Your task to perform on an android device: check out phone information Image 0: 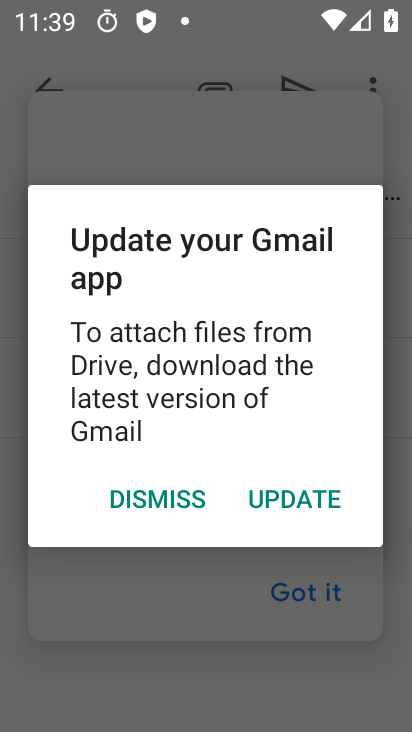
Step 0: press home button
Your task to perform on an android device: check out phone information Image 1: 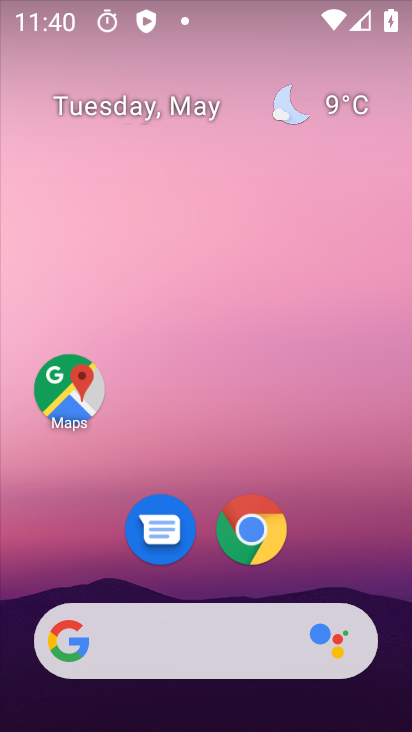
Step 1: drag from (98, 597) to (262, 43)
Your task to perform on an android device: check out phone information Image 2: 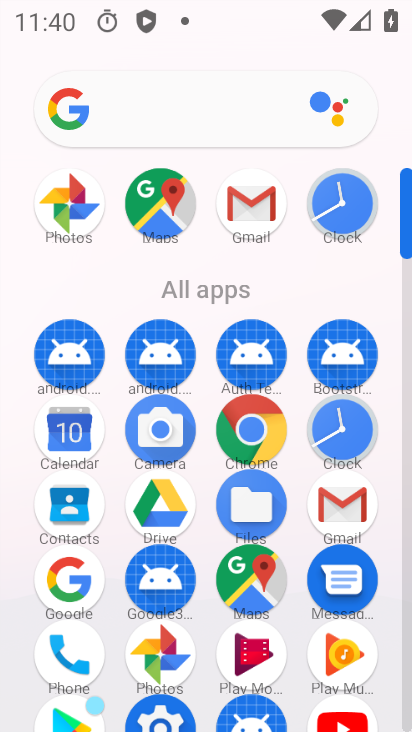
Step 2: drag from (136, 574) to (210, 313)
Your task to perform on an android device: check out phone information Image 3: 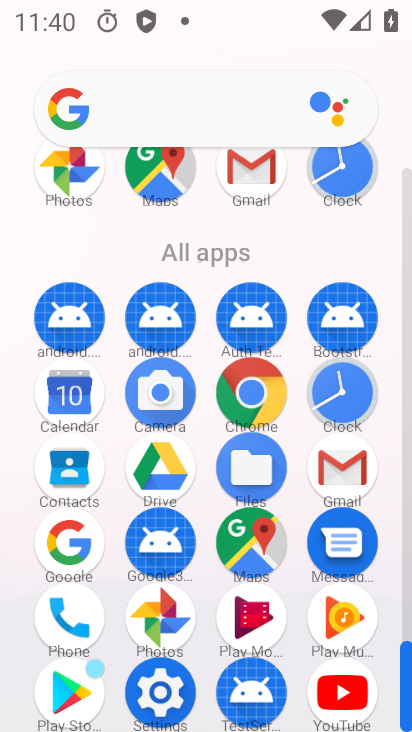
Step 3: click (167, 699)
Your task to perform on an android device: check out phone information Image 4: 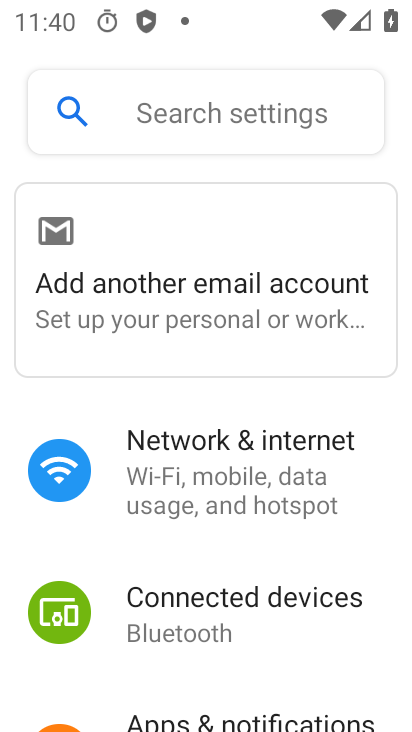
Step 4: drag from (171, 692) to (321, 195)
Your task to perform on an android device: check out phone information Image 5: 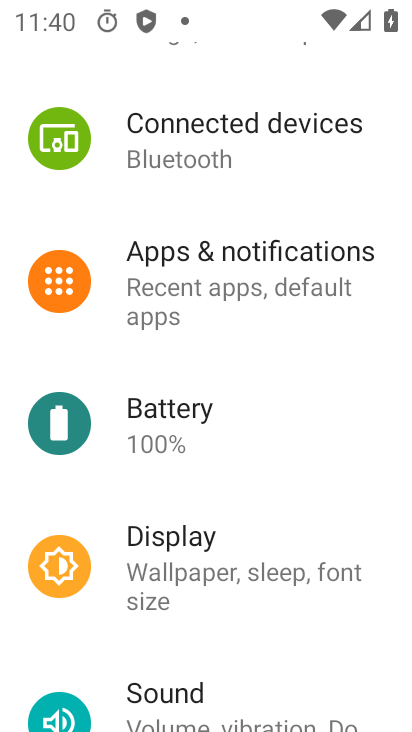
Step 5: drag from (199, 667) to (353, 177)
Your task to perform on an android device: check out phone information Image 6: 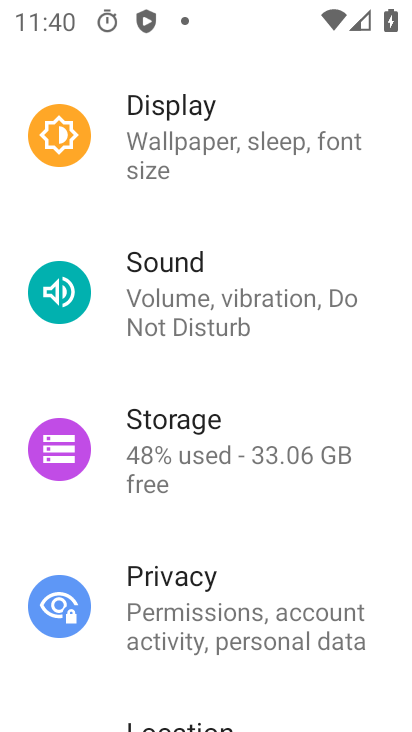
Step 6: drag from (135, 661) to (283, 72)
Your task to perform on an android device: check out phone information Image 7: 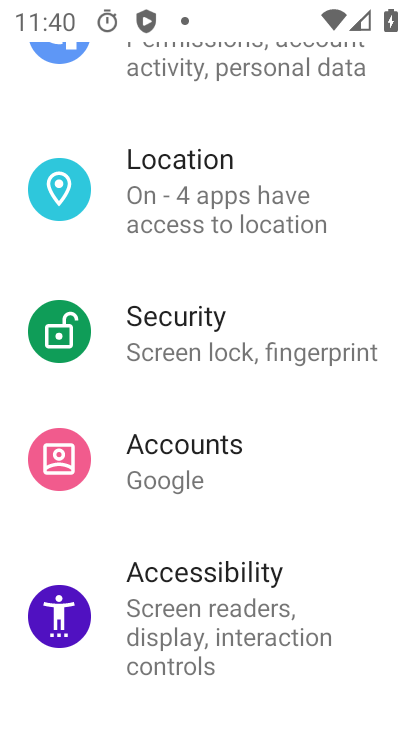
Step 7: drag from (187, 657) to (302, 145)
Your task to perform on an android device: check out phone information Image 8: 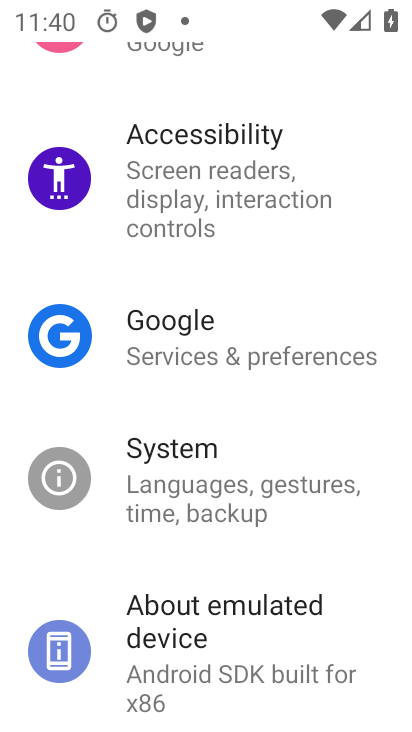
Step 8: drag from (169, 700) to (241, 270)
Your task to perform on an android device: check out phone information Image 9: 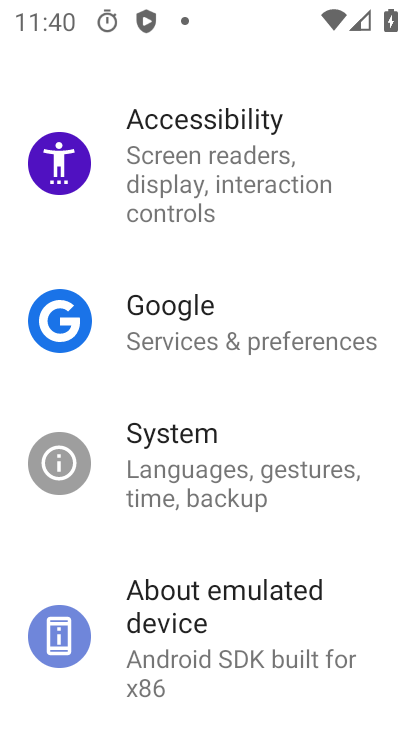
Step 9: click (190, 585)
Your task to perform on an android device: check out phone information Image 10: 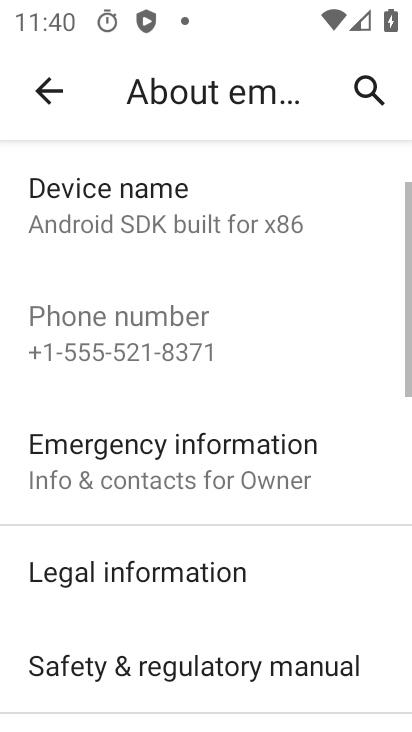
Step 10: task complete